Your task to perform on an android device: Open Android settings Image 0: 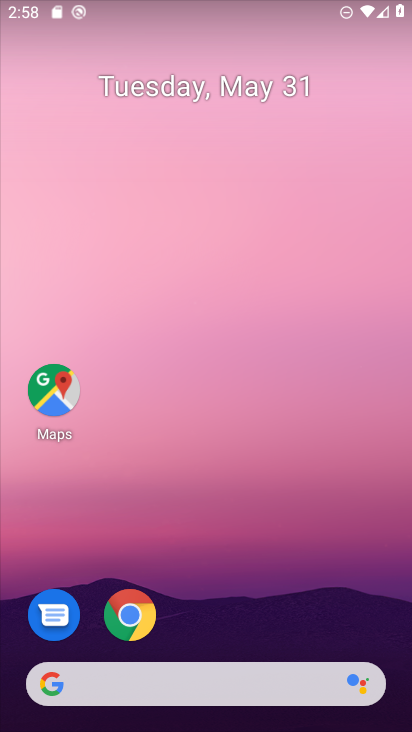
Step 0: drag from (275, 655) to (262, 132)
Your task to perform on an android device: Open Android settings Image 1: 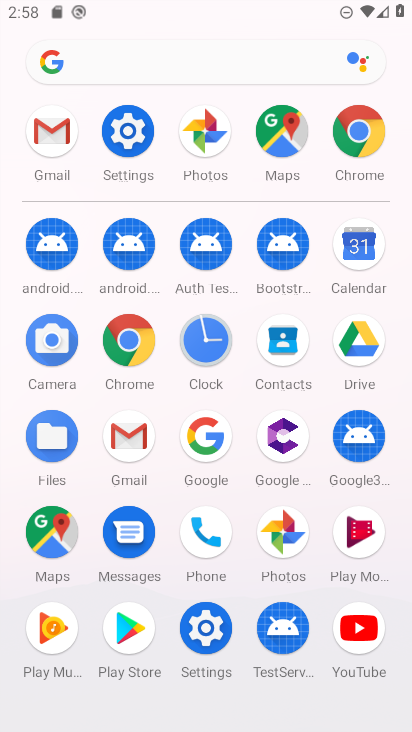
Step 1: click (197, 633)
Your task to perform on an android device: Open Android settings Image 2: 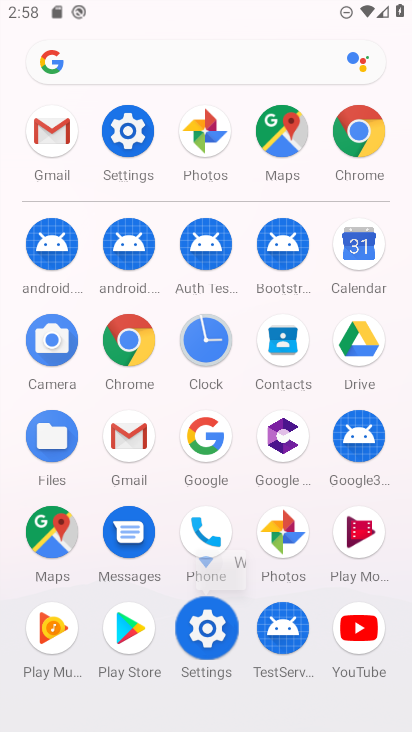
Step 2: click (197, 632)
Your task to perform on an android device: Open Android settings Image 3: 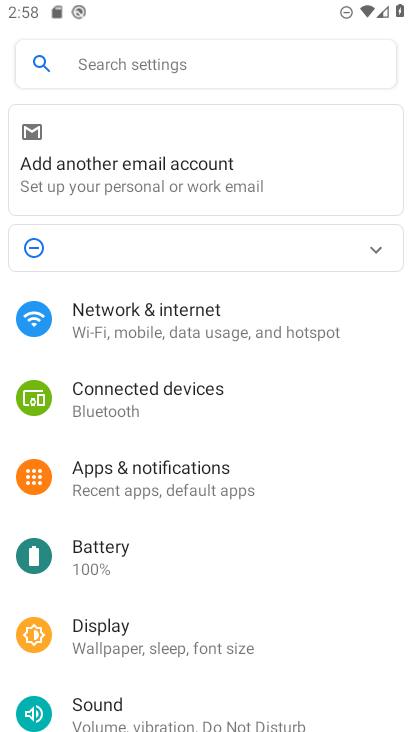
Step 3: drag from (191, 563) to (181, 92)
Your task to perform on an android device: Open Android settings Image 4: 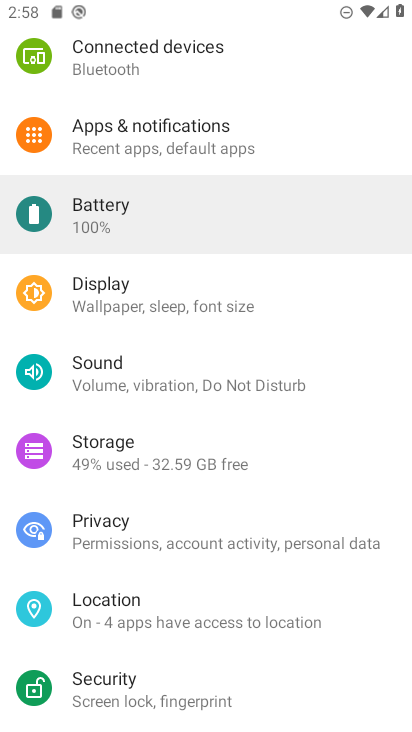
Step 4: drag from (235, 595) to (229, 263)
Your task to perform on an android device: Open Android settings Image 5: 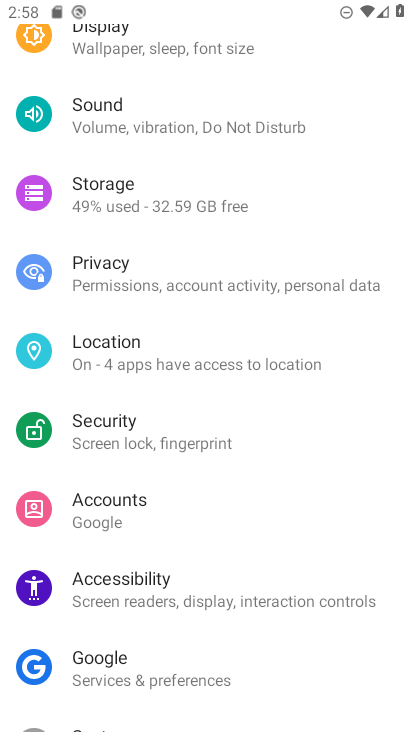
Step 5: drag from (223, 410) to (202, 149)
Your task to perform on an android device: Open Android settings Image 6: 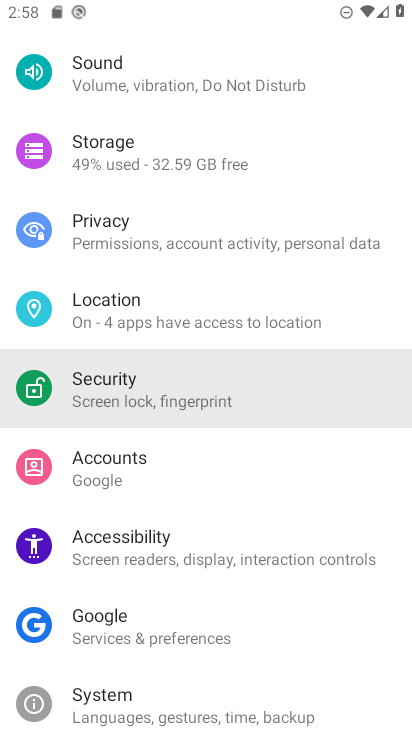
Step 6: drag from (236, 461) to (230, 191)
Your task to perform on an android device: Open Android settings Image 7: 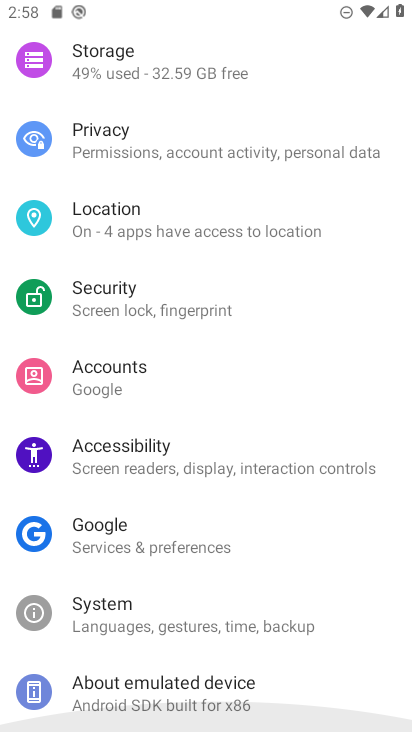
Step 7: drag from (259, 402) to (266, 175)
Your task to perform on an android device: Open Android settings Image 8: 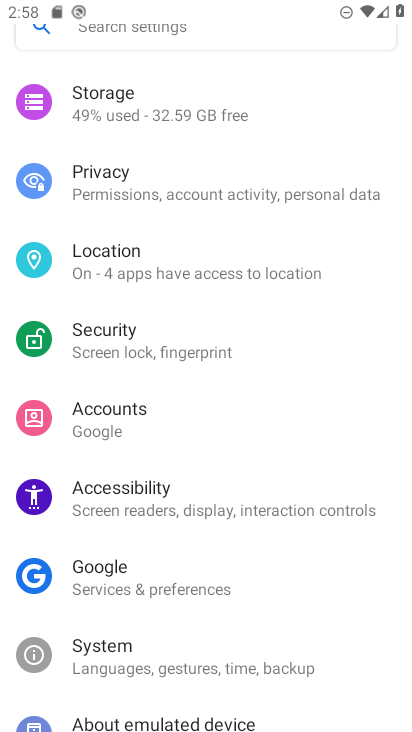
Step 8: drag from (96, 456) to (90, 325)
Your task to perform on an android device: Open Android settings Image 9: 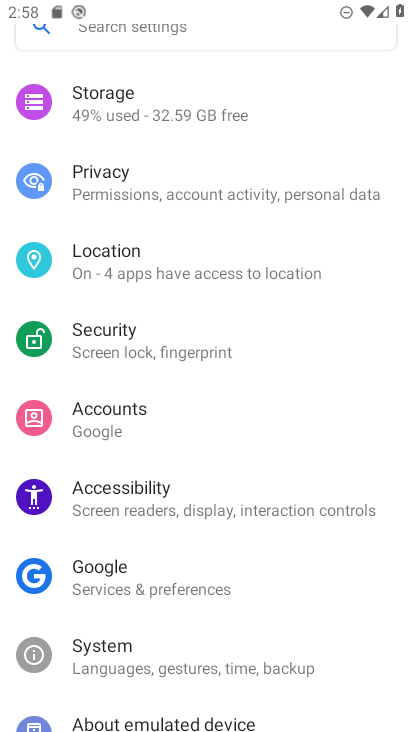
Step 9: drag from (159, 593) to (173, 283)
Your task to perform on an android device: Open Android settings Image 10: 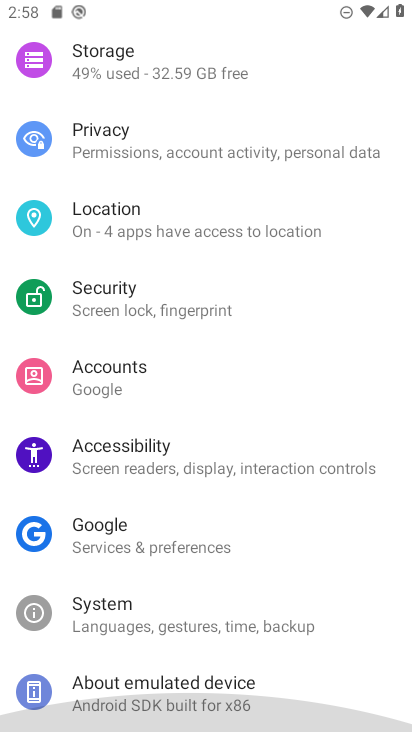
Step 10: drag from (155, 533) to (198, 324)
Your task to perform on an android device: Open Android settings Image 11: 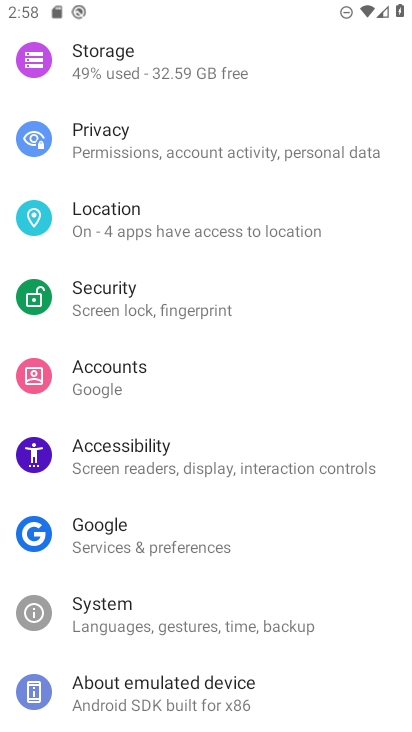
Step 11: click (163, 708)
Your task to perform on an android device: Open Android settings Image 12: 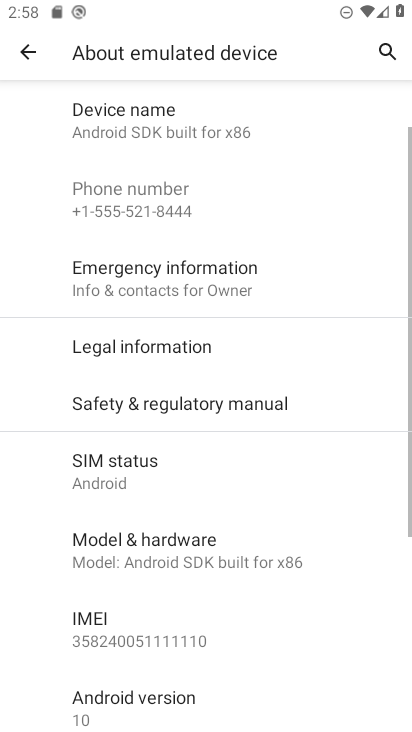
Step 12: click (137, 694)
Your task to perform on an android device: Open Android settings Image 13: 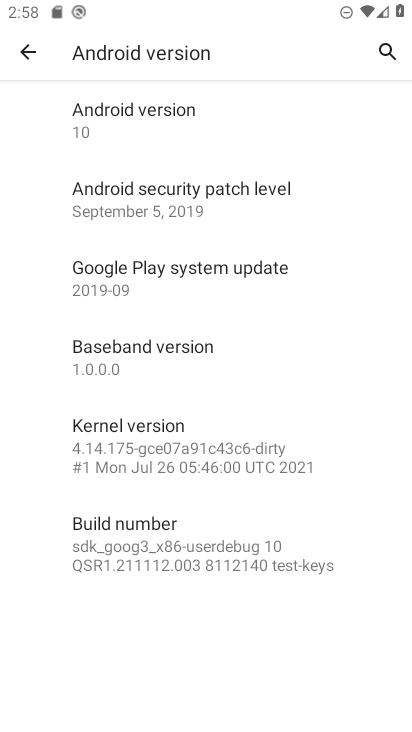
Step 13: task complete